Your task to perform on an android device: move an email to a new category in the gmail app Image 0: 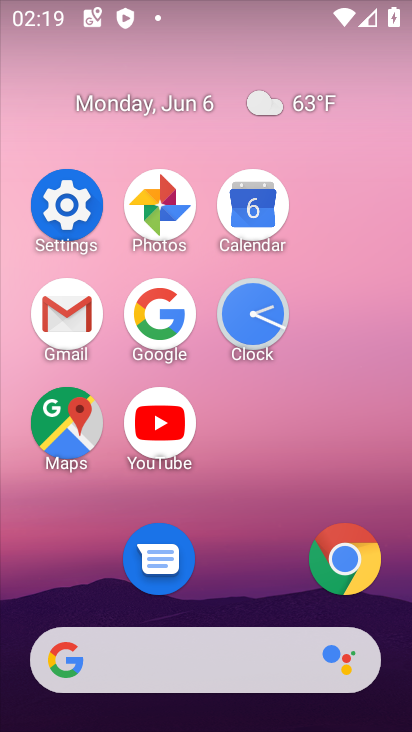
Step 0: click (74, 316)
Your task to perform on an android device: move an email to a new category in the gmail app Image 1: 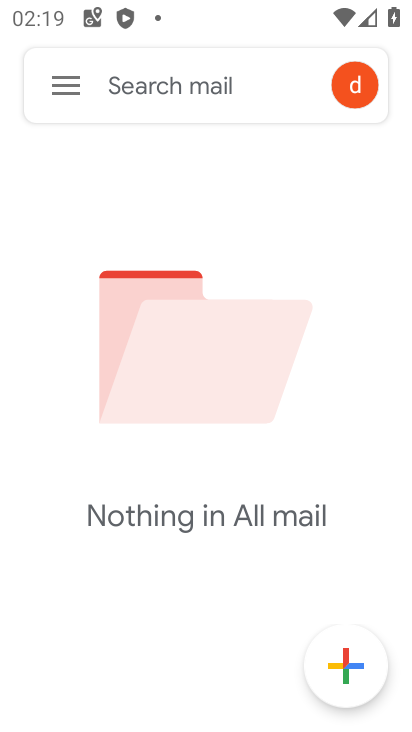
Step 1: click (49, 75)
Your task to perform on an android device: move an email to a new category in the gmail app Image 2: 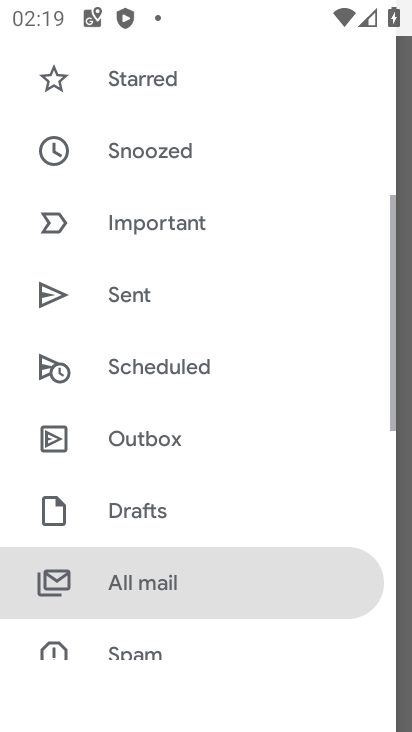
Step 2: click (200, 580)
Your task to perform on an android device: move an email to a new category in the gmail app Image 3: 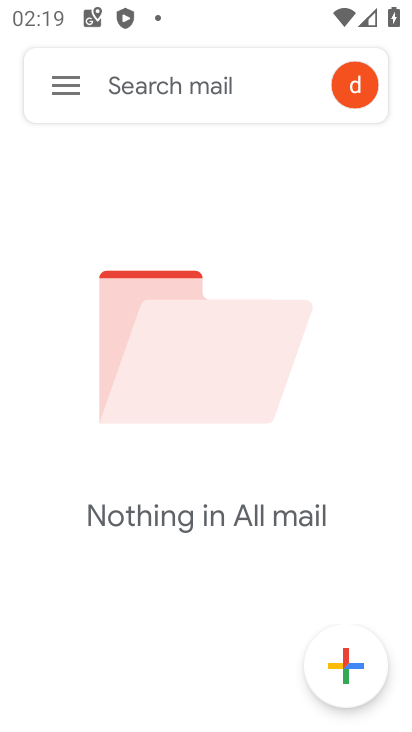
Step 3: task complete